Your task to perform on an android device: set the timer Image 0: 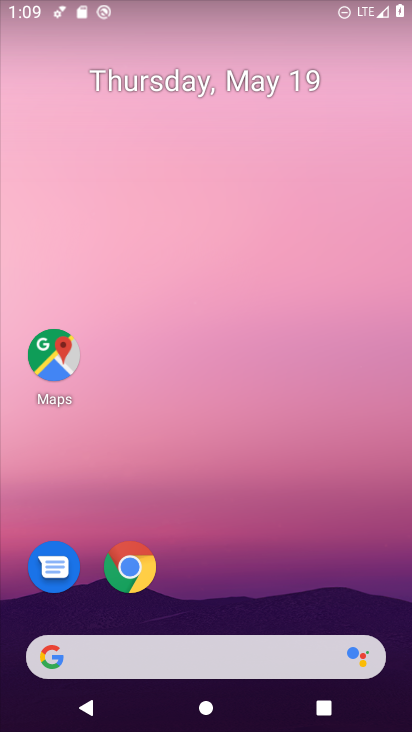
Step 0: drag from (225, 513) to (208, 48)
Your task to perform on an android device: set the timer Image 1: 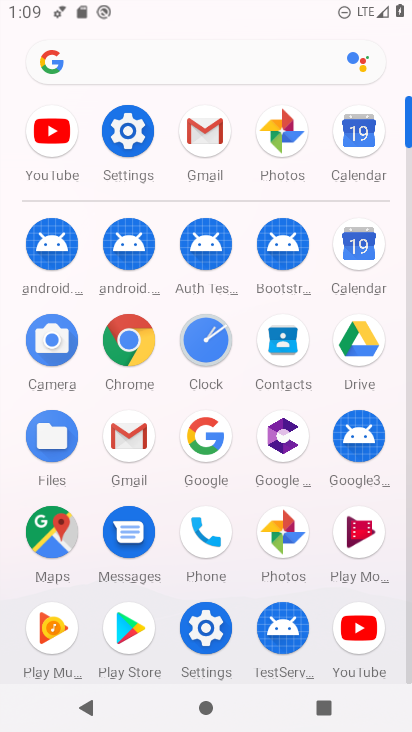
Step 1: click (218, 335)
Your task to perform on an android device: set the timer Image 2: 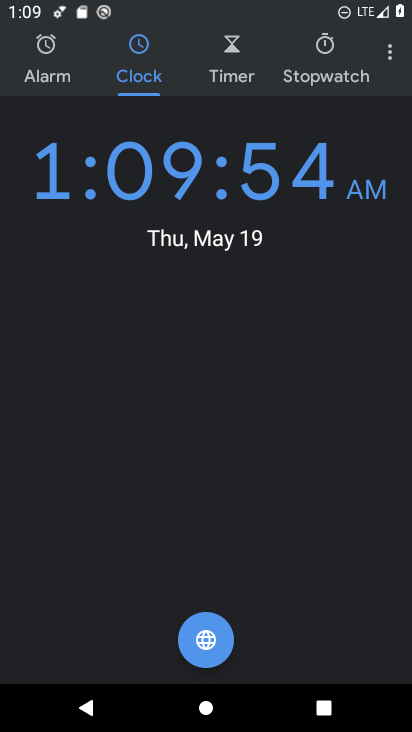
Step 2: click (248, 78)
Your task to perform on an android device: set the timer Image 3: 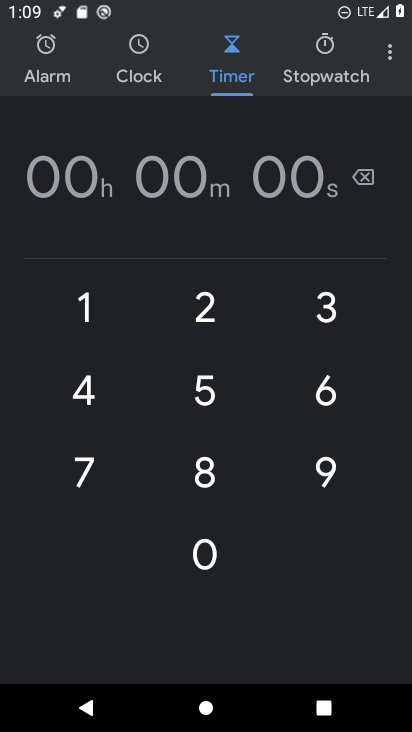
Step 3: click (90, 303)
Your task to perform on an android device: set the timer Image 4: 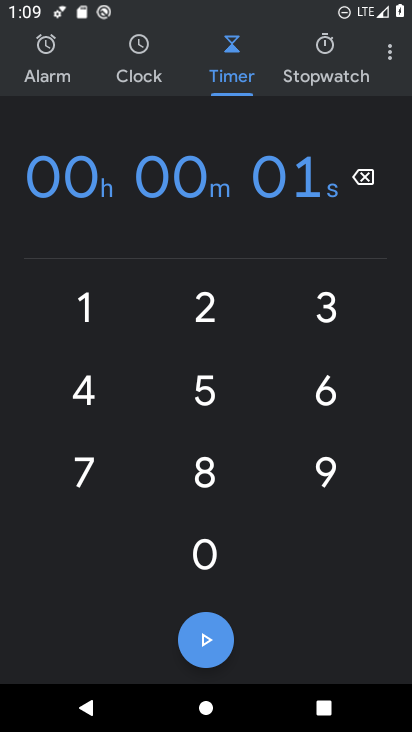
Step 4: click (86, 385)
Your task to perform on an android device: set the timer Image 5: 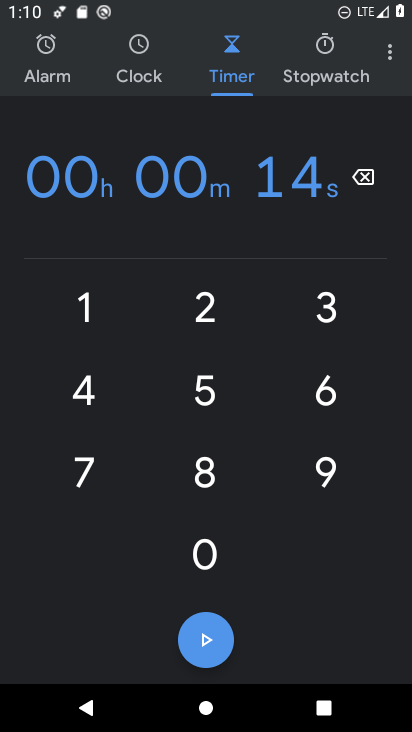
Step 5: task complete